Your task to perform on an android device: open a bookmark in the chrome app Image 0: 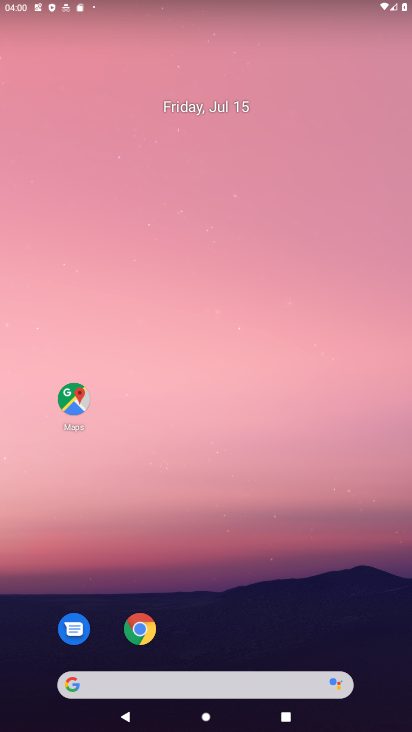
Step 0: drag from (205, 636) to (193, 111)
Your task to perform on an android device: open a bookmark in the chrome app Image 1: 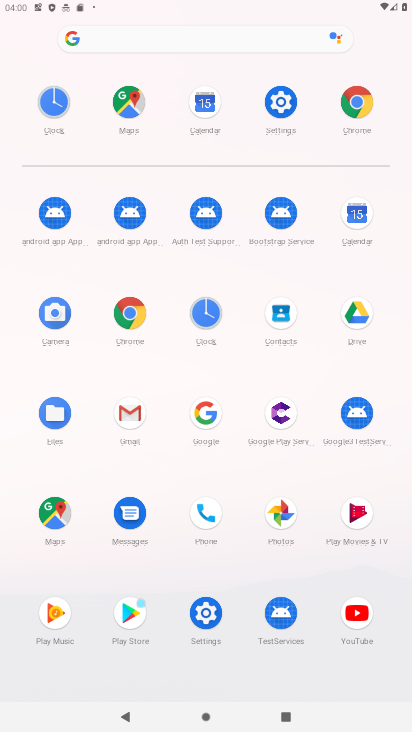
Step 1: click (132, 311)
Your task to perform on an android device: open a bookmark in the chrome app Image 2: 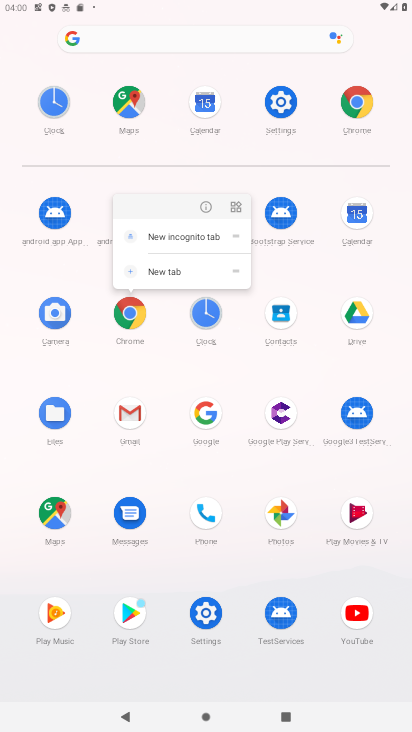
Step 2: click (132, 311)
Your task to perform on an android device: open a bookmark in the chrome app Image 3: 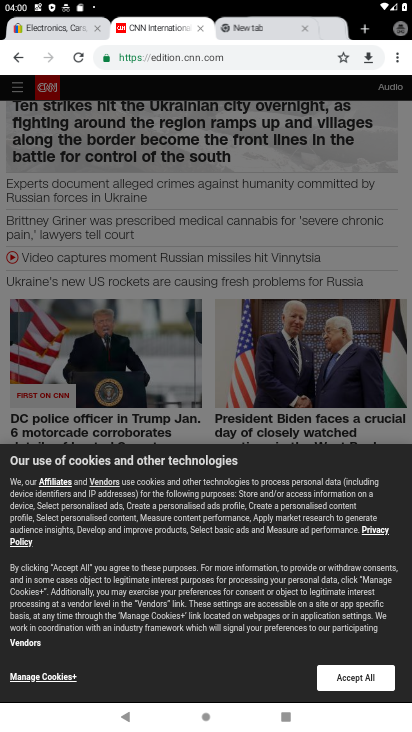
Step 3: task complete